Your task to perform on an android device: stop showing notifications on the lock screen Image 0: 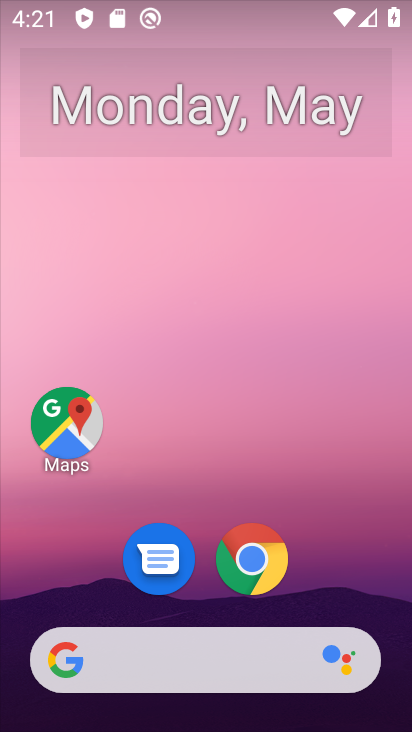
Step 0: drag from (205, 652) to (241, 42)
Your task to perform on an android device: stop showing notifications on the lock screen Image 1: 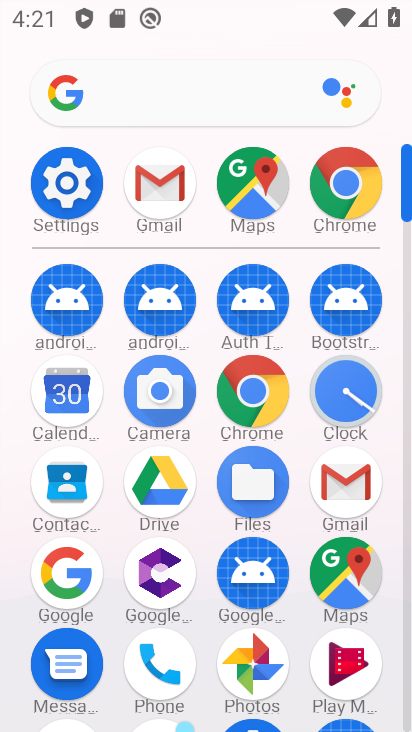
Step 1: click (69, 176)
Your task to perform on an android device: stop showing notifications on the lock screen Image 2: 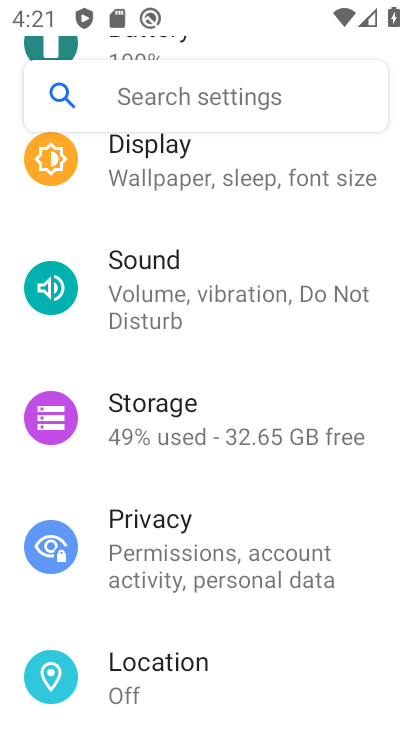
Step 2: drag from (260, 188) to (216, 728)
Your task to perform on an android device: stop showing notifications on the lock screen Image 3: 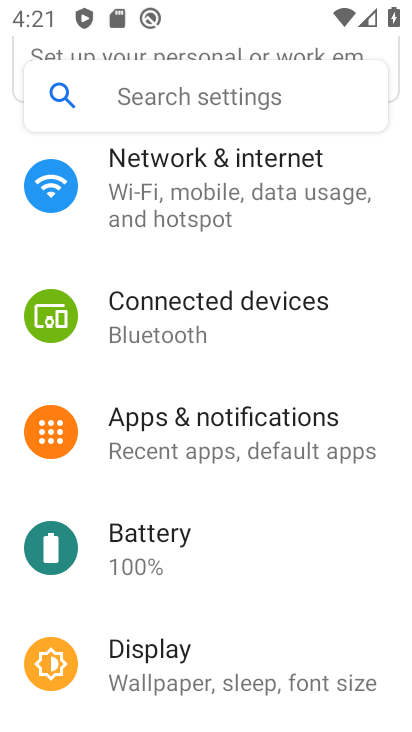
Step 3: click (233, 431)
Your task to perform on an android device: stop showing notifications on the lock screen Image 4: 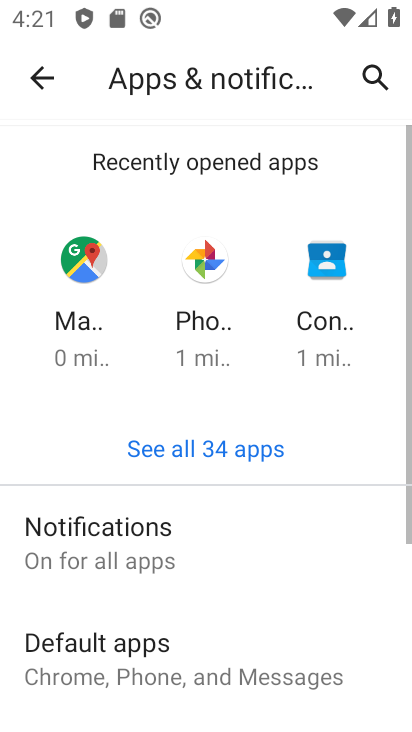
Step 4: drag from (236, 668) to (250, 245)
Your task to perform on an android device: stop showing notifications on the lock screen Image 5: 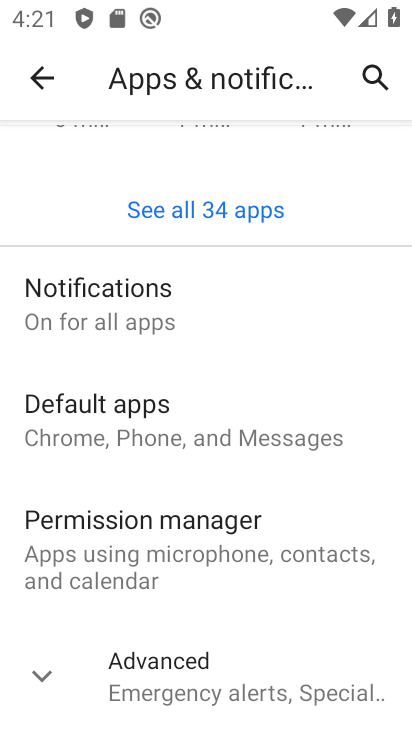
Step 5: click (183, 314)
Your task to perform on an android device: stop showing notifications on the lock screen Image 6: 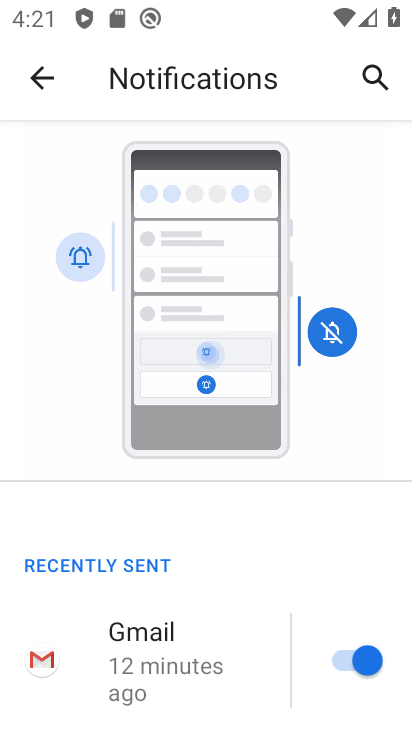
Step 6: drag from (239, 594) to (281, 53)
Your task to perform on an android device: stop showing notifications on the lock screen Image 7: 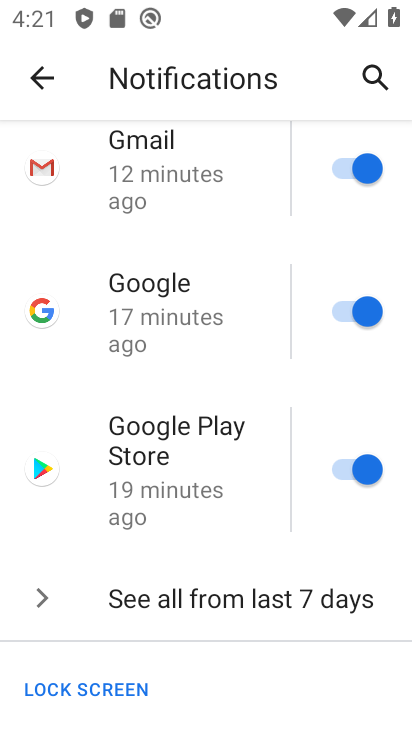
Step 7: drag from (244, 655) to (294, 175)
Your task to perform on an android device: stop showing notifications on the lock screen Image 8: 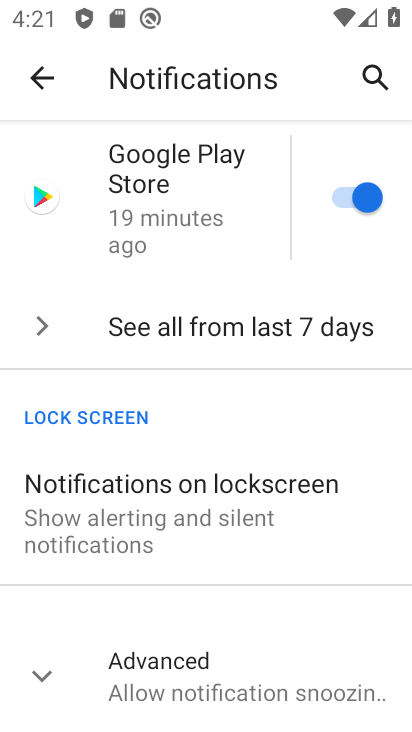
Step 8: click (163, 499)
Your task to perform on an android device: stop showing notifications on the lock screen Image 9: 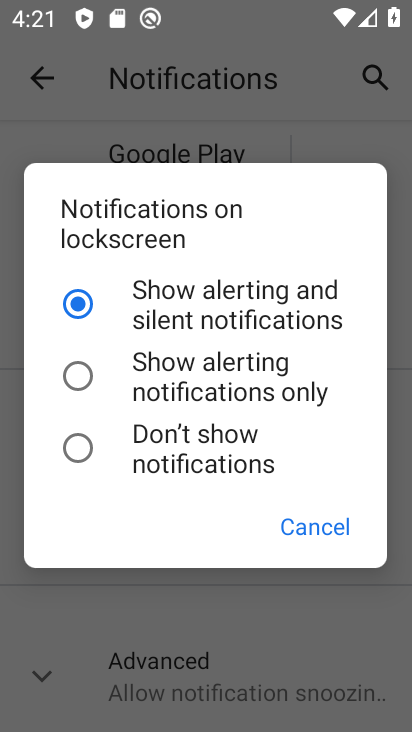
Step 9: click (61, 459)
Your task to perform on an android device: stop showing notifications on the lock screen Image 10: 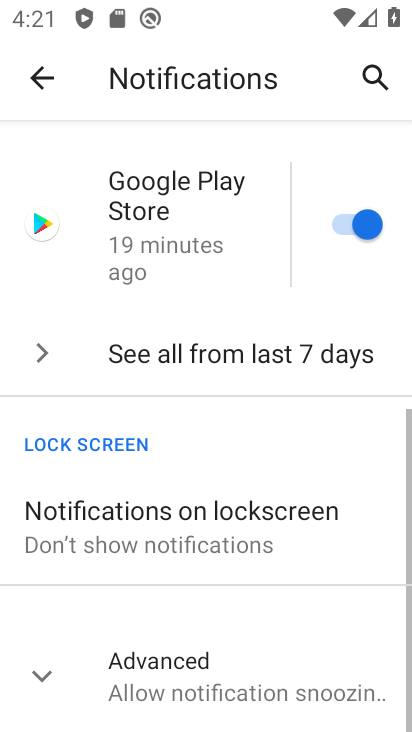
Step 10: task complete